Your task to perform on an android device: change the clock display to show seconds Image 0: 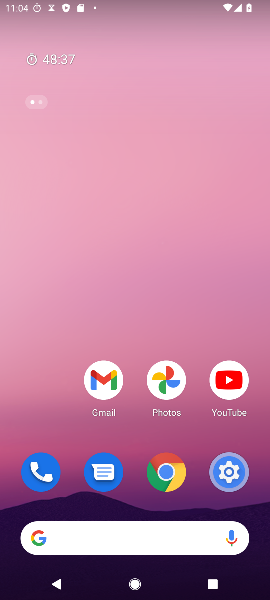
Step 0: drag from (204, 341) to (186, 26)
Your task to perform on an android device: change the clock display to show seconds Image 1: 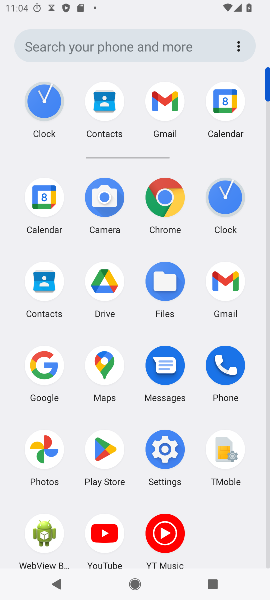
Step 1: click (171, 452)
Your task to perform on an android device: change the clock display to show seconds Image 2: 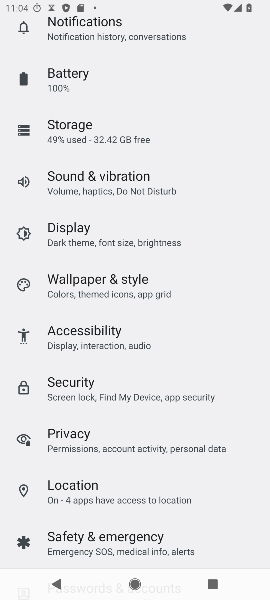
Step 2: press home button
Your task to perform on an android device: change the clock display to show seconds Image 3: 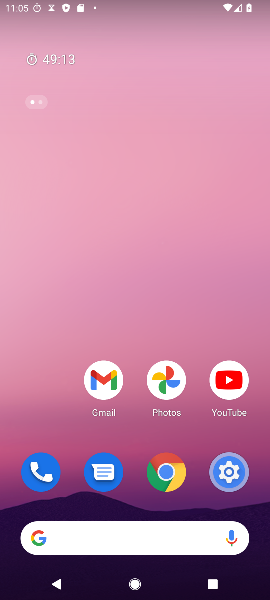
Step 3: drag from (199, 341) to (181, 20)
Your task to perform on an android device: change the clock display to show seconds Image 4: 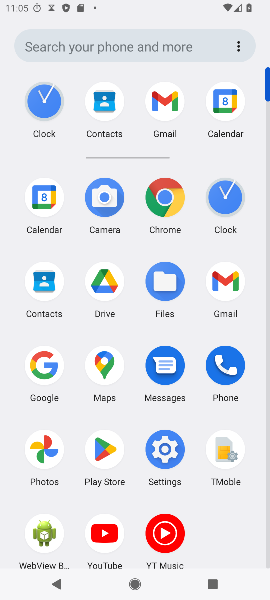
Step 4: click (229, 203)
Your task to perform on an android device: change the clock display to show seconds Image 5: 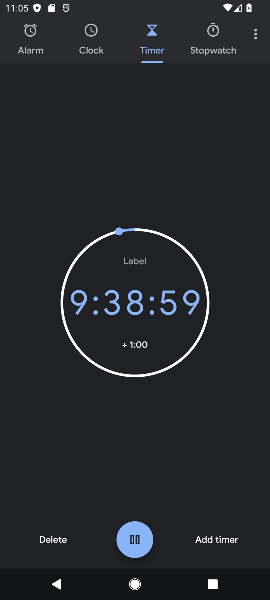
Step 5: click (258, 35)
Your task to perform on an android device: change the clock display to show seconds Image 6: 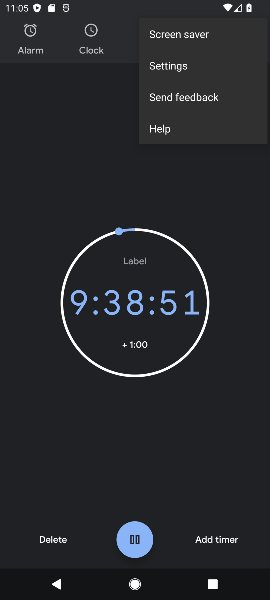
Step 6: click (187, 67)
Your task to perform on an android device: change the clock display to show seconds Image 7: 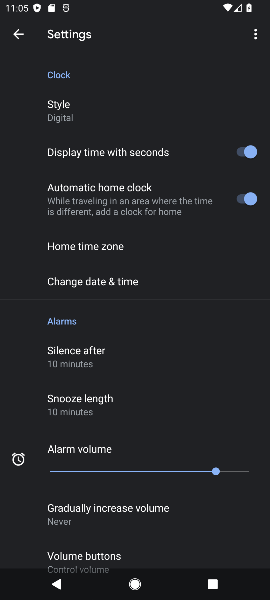
Step 7: task complete